Your task to perform on an android device: Search for sushi restaurants on Maps Image 0: 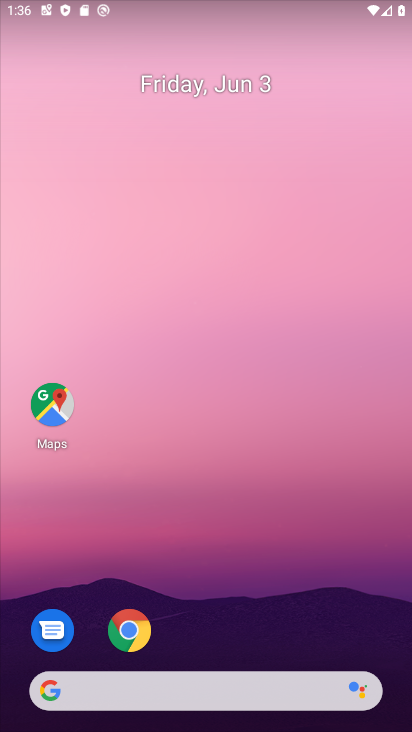
Step 0: drag from (203, 709) to (203, 136)
Your task to perform on an android device: Search for sushi restaurants on Maps Image 1: 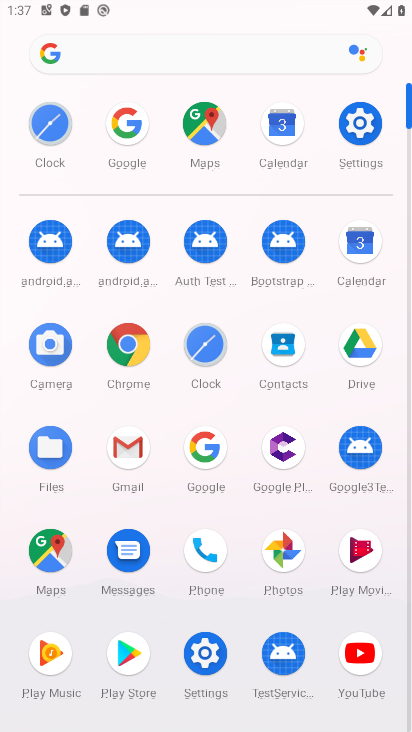
Step 1: click (47, 544)
Your task to perform on an android device: Search for sushi restaurants on Maps Image 2: 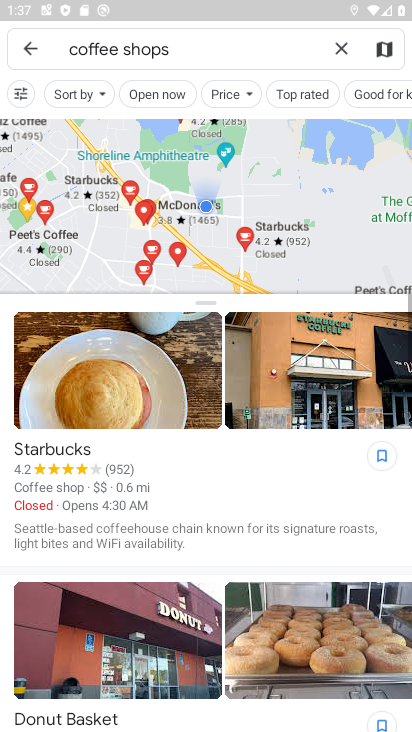
Step 2: click (340, 42)
Your task to perform on an android device: Search for sushi restaurants on Maps Image 3: 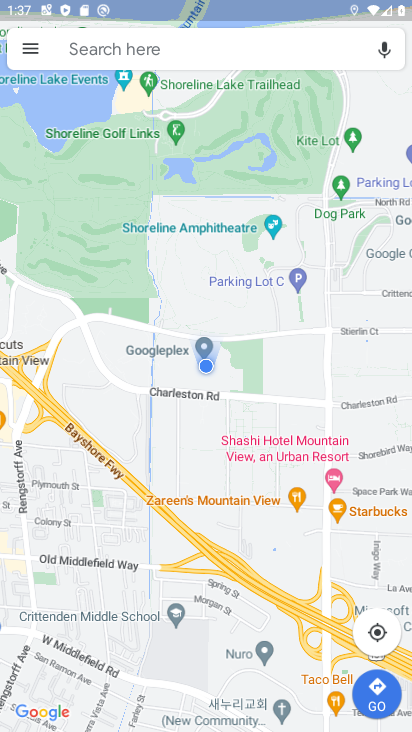
Step 3: click (114, 37)
Your task to perform on an android device: Search for sushi restaurants on Maps Image 4: 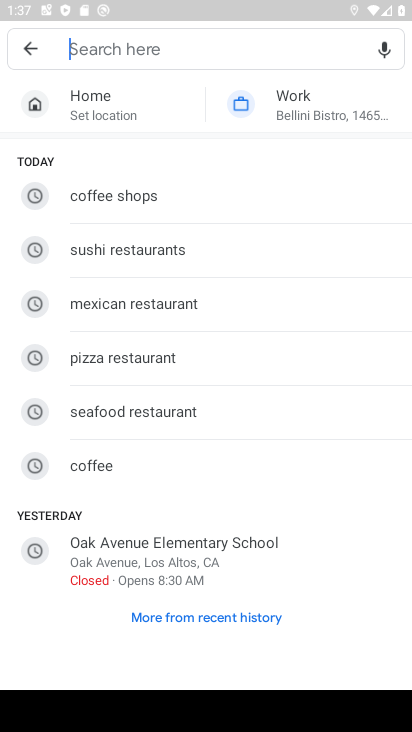
Step 4: type "sushi restaurants"
Your task to perform on an android device: Search for sushi restaurants on Maps Image 5: 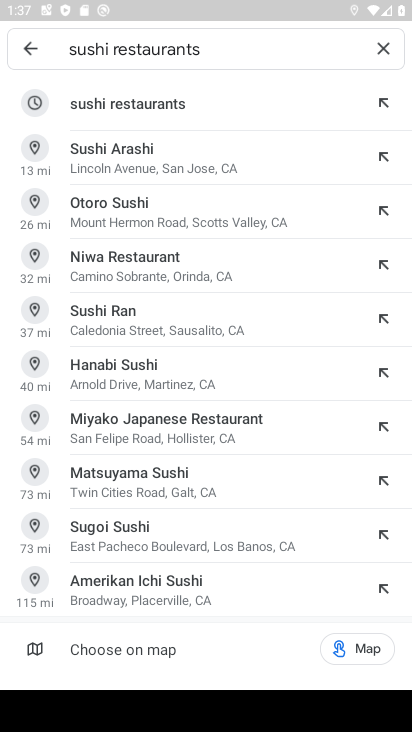
Step 5: click (143, 106)
Your task to perform on an android device: Search for sushi restaurants on Maps Image 6: 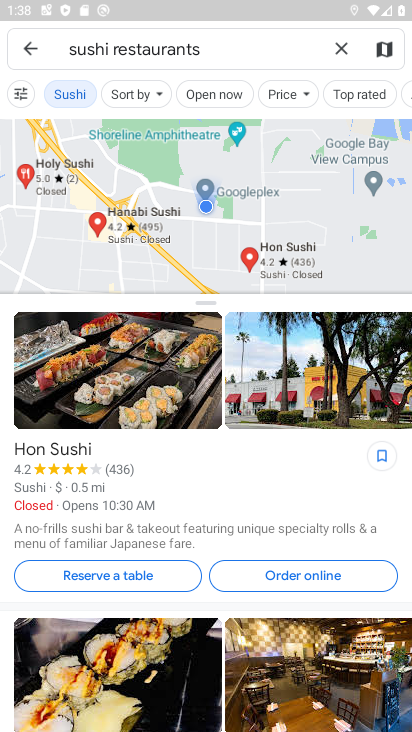
Step 6: task complete